Your task to perform on an android device: Open Wikipedia Image 0: 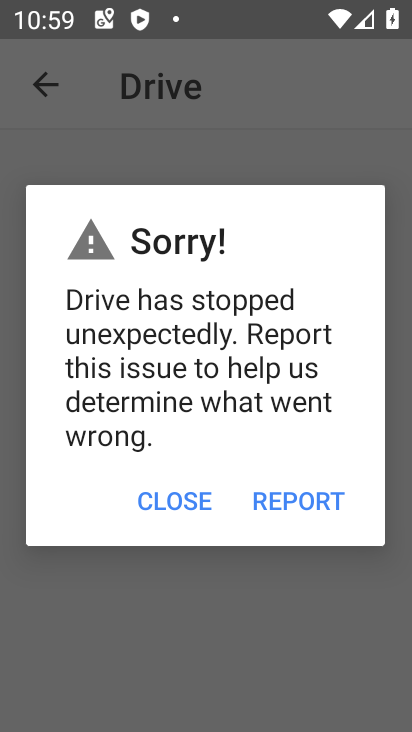
Step 0: press home button
Your task to perform on an android device: Open Wikipedia Image 1: 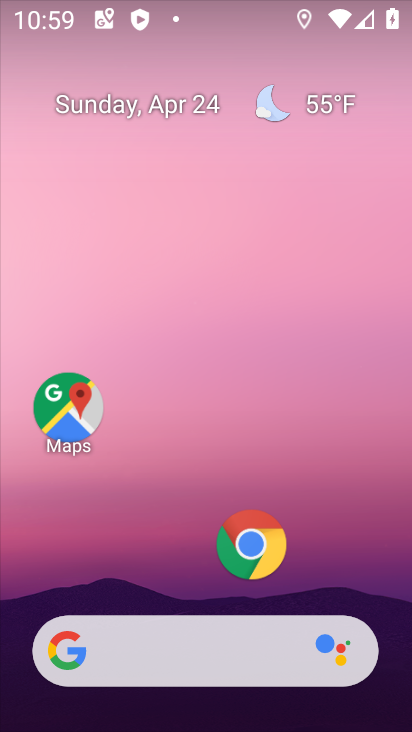
Step 1: click (206, 643)
Your task to perform on an android device: Open Wikipedia Image 2: 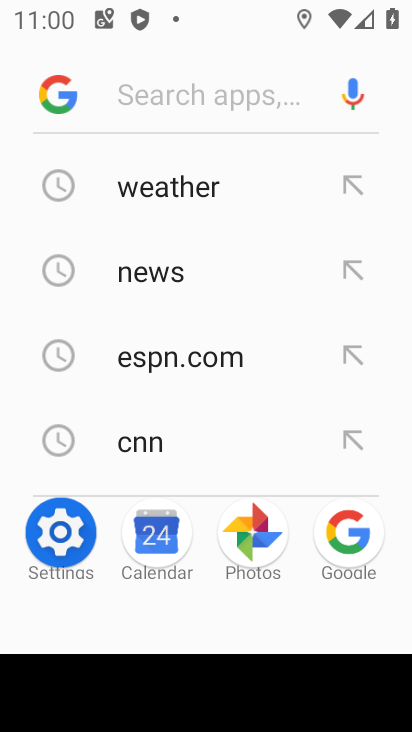
Step 2: type "Wikipedia"
Your task to perform on an android device: Open Wikipedia Image 3: 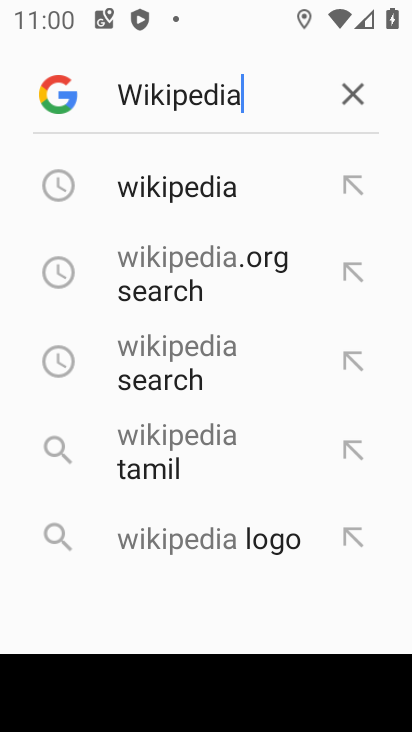
Step 3: click (266, 184)
Your task to perform on an android device: Open Wikipedia Image 4: 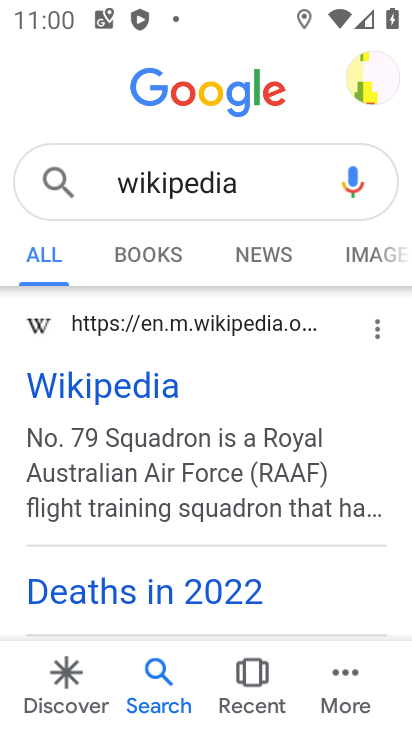
Step 4: click (91, 372)
Your task to perform on an android device: Open Wikipedia Image 5: 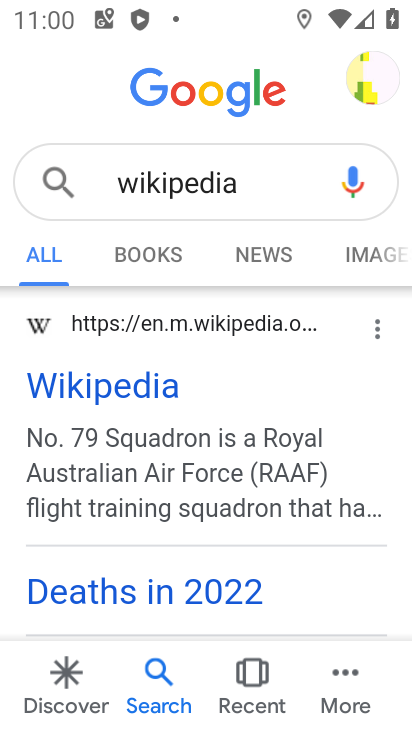
Step 5: click (63, 379)
Your task to perform on an android device: Open Wikipedia Image 6: 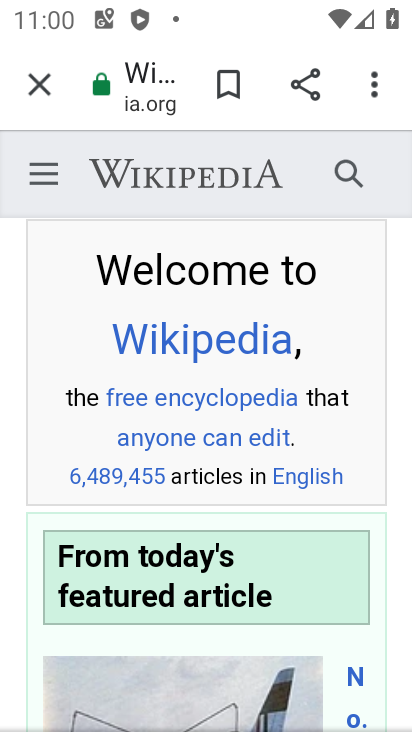
Step 6: task complete